Your task to perform on an android device: check storage Image 0: 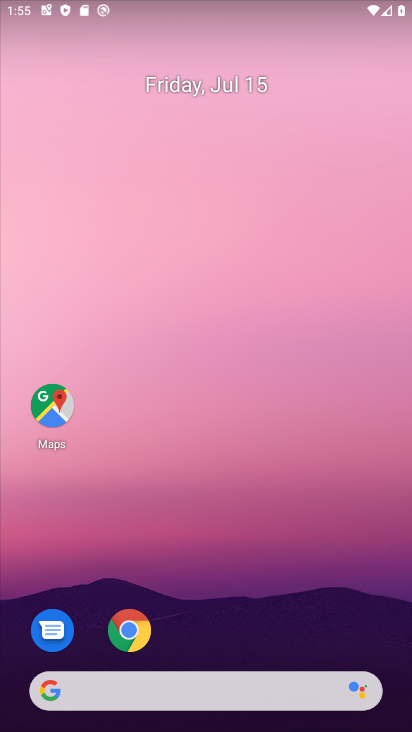
Step 0: drag from (235, 639) to (187, 81)
Your task to perform on an android device: check storage Image 1: 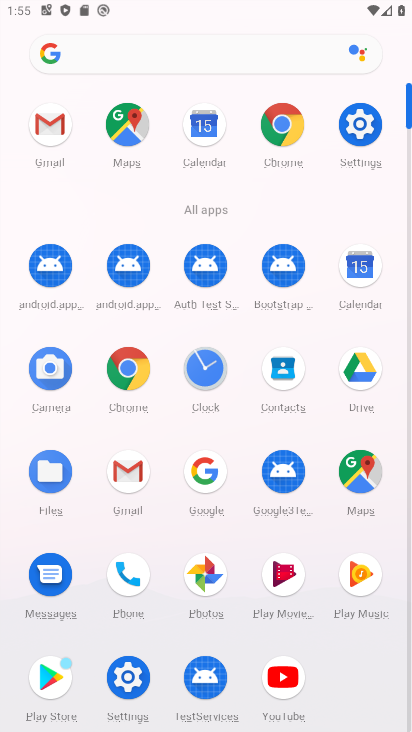
Step 1: click (362, 122)
Your task to perform on an android device: check storage Image 2: 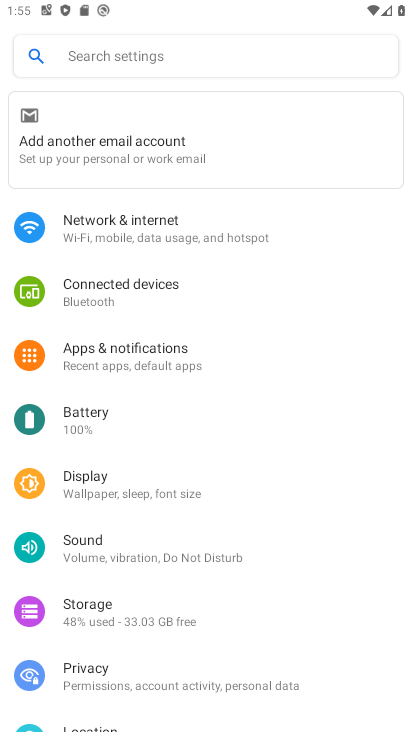
Step 2: click (107, 610)
Your task to perform on an android device: check storage Image 3: 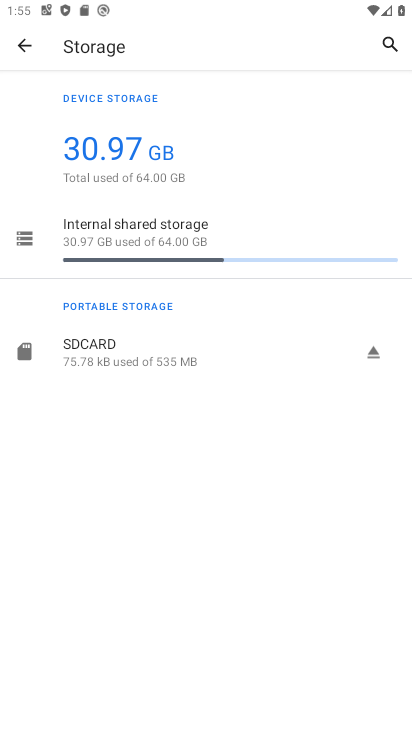
Step 3: task complete